Your task to perform on an android device: Go to Google Image 0: 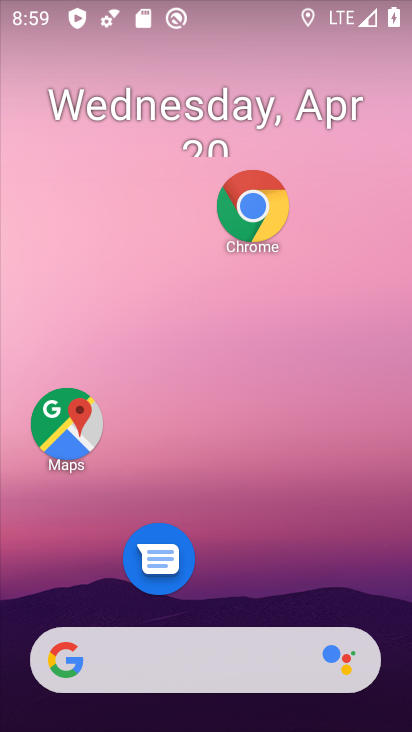
Step 0: drag from (238, 552) to (278, 181)
Your task to perform on an android device: Go to Google Image 1: 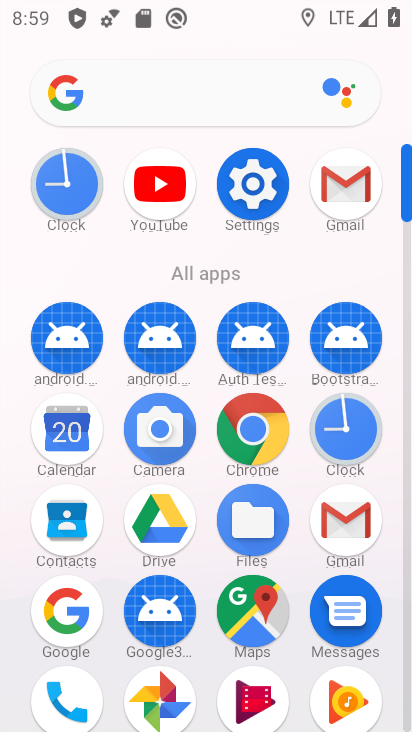
Step 1: click (64, 631)
Your task to perform on an android device: Go to Google Image 2: 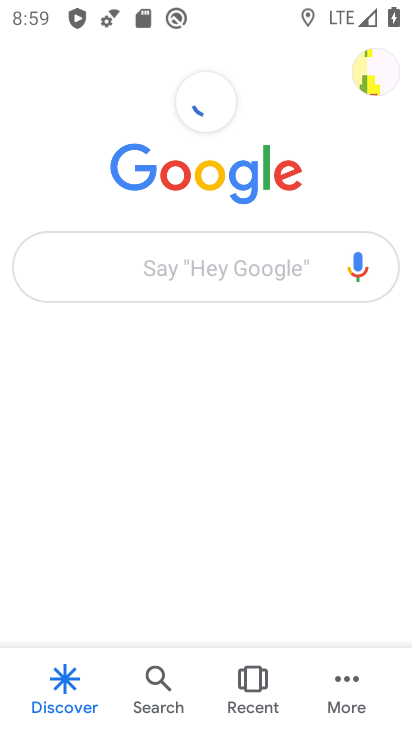
Step 2: task complete